Your task to perform on an android device: Open Google Maps and go to "Timeline" Image 0: 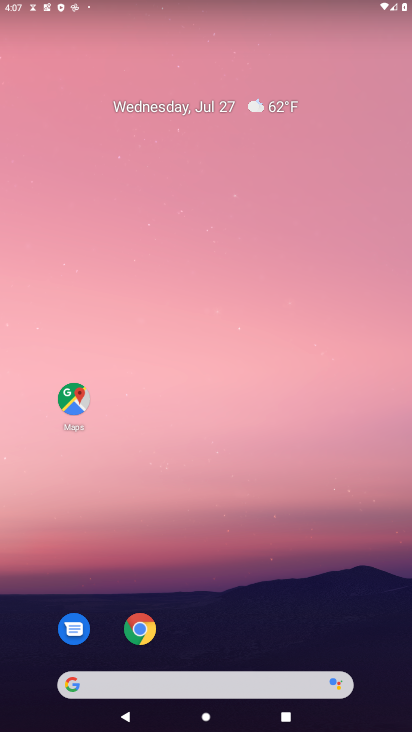
Step 0: click (73, 401)
Your task to perform on an android device: Open Google Maps and go to "Timeline" Image 1: 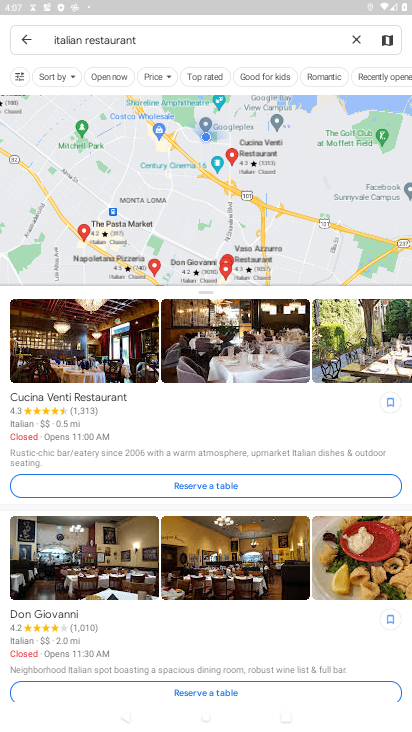
Step 1: click (353, 37)
Your task to perform on an android device: Open Google Maps and go to "Timeline" Image 2: 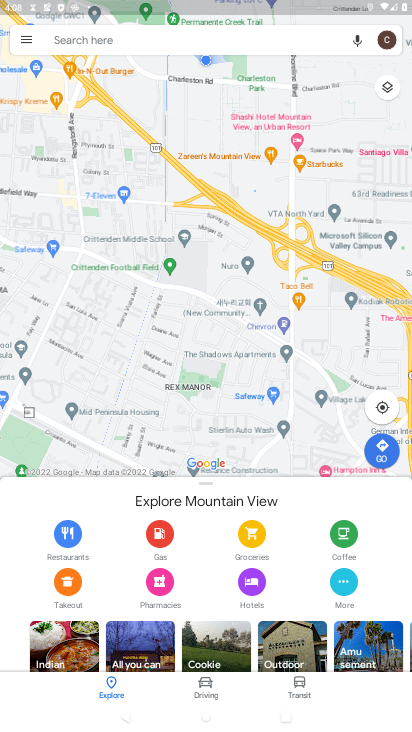
Step 2: click (25, 38)
Your task to perform on an android device: Open Google Maps and go to "Timeline" Image 3: 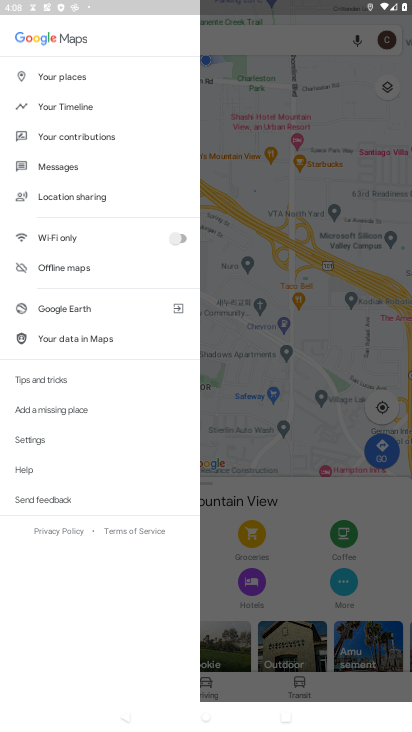
Step 3: click (65, 107)
Your task to perform on an android device: Open Google Maps and go to "Timeline" Image 4: 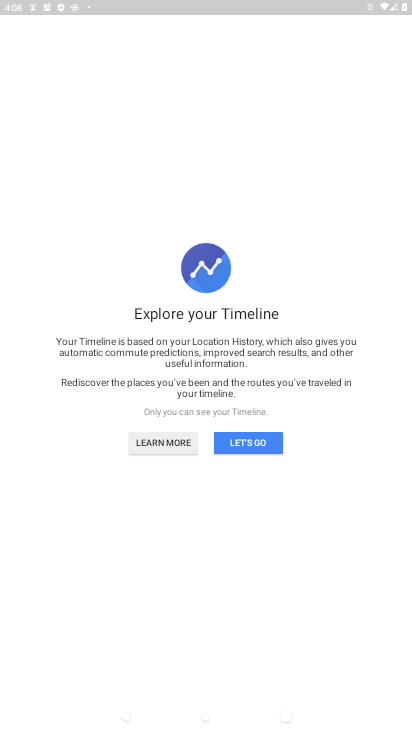
Step 4: click (263, 444)
Your task to perform on an android device: Open Google Maps and go to "Timeline" Image 5: 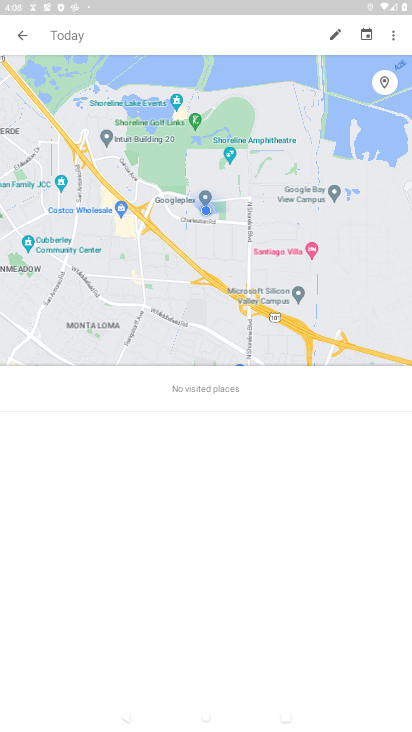
Step 5: task complete